Your task to perform on an android device: turn on showing notifications on the lock screen Image 0: 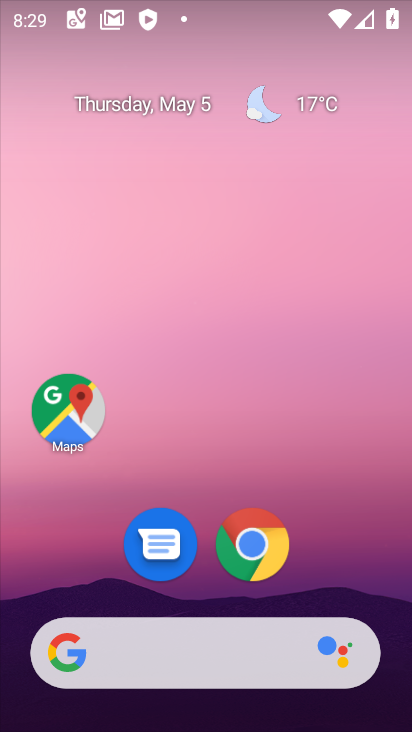
Step 0: drag from (404, 653) to (311, 101)
Your task to perform on an android device: turn on showing notifications on the lock screen Image 1: 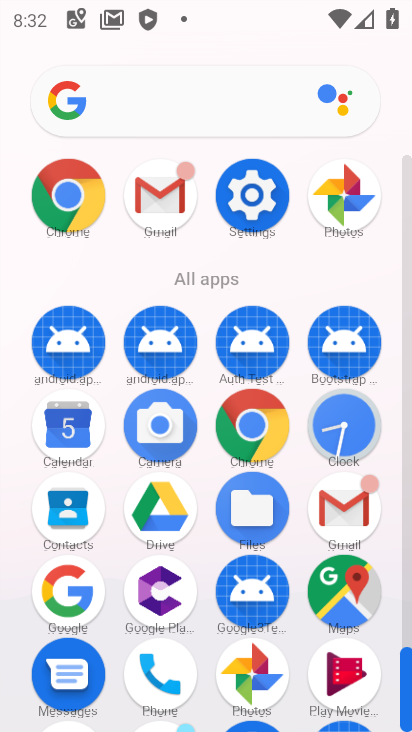
Step 1: click (240, 212)
Your task to perform on an android device: turn on showing notifications on the lock screen Image 2: 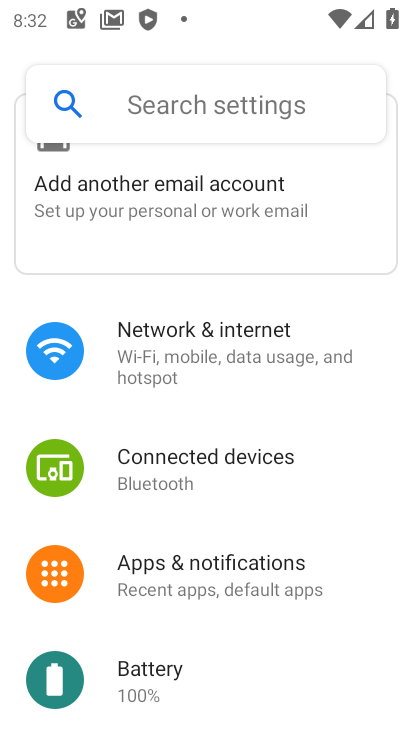
Step 2: drag from (182, 665) to (245, 393)
Your task to perform on an android device: turn on showing notifications on the lock screen Image 3: 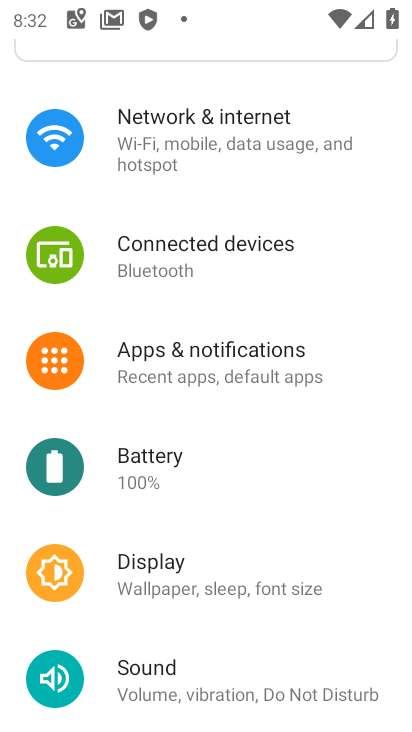
Step 3: click (220, 358)
Your task to perform on an android device: turn on showing notifications on the lock screen Image 4: 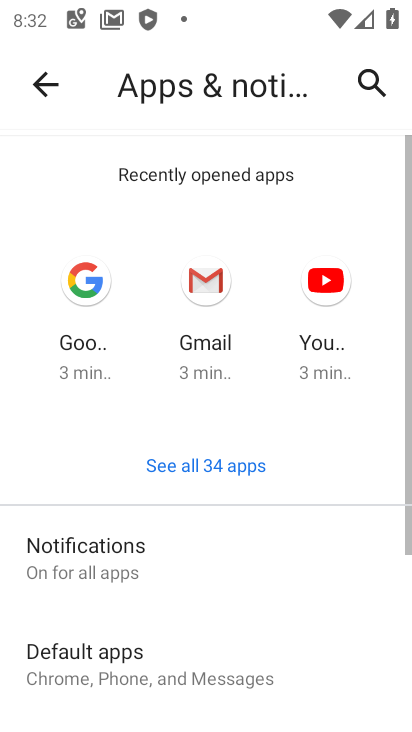
Step 4: click (184, 569)
Your task to perform on an android device: turn on showing notifications on the lock screen Image 5: 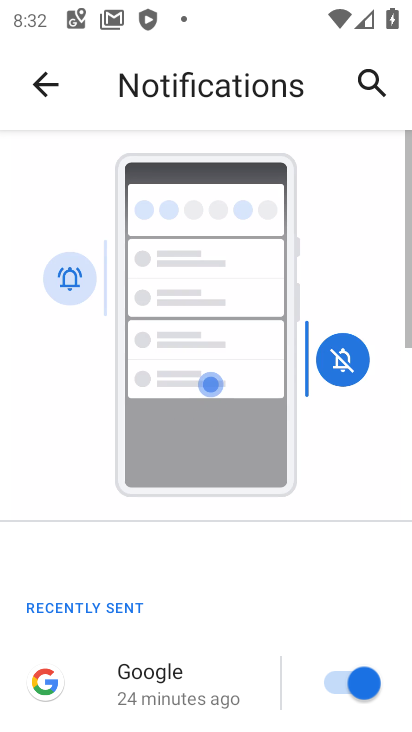
Step 5: drag from (156, 694) to (213, 27)
Your task to perform on an android device: turn on showing notifications on the lock screen Image 6: 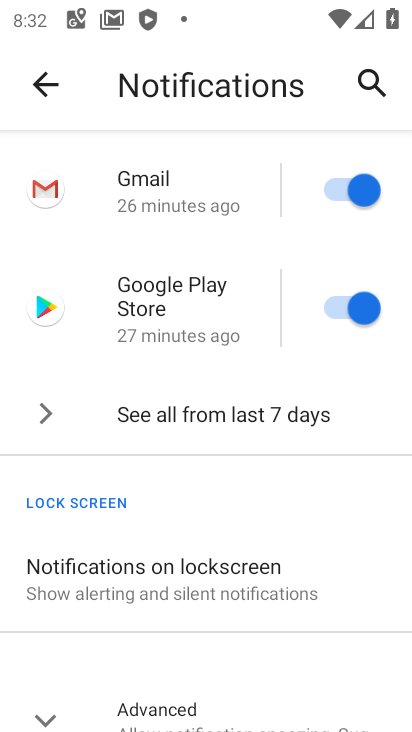
Step 6: click (215, 571)
Your task to perform on an android device: turn on showing notifications on the lock screen Image 7: 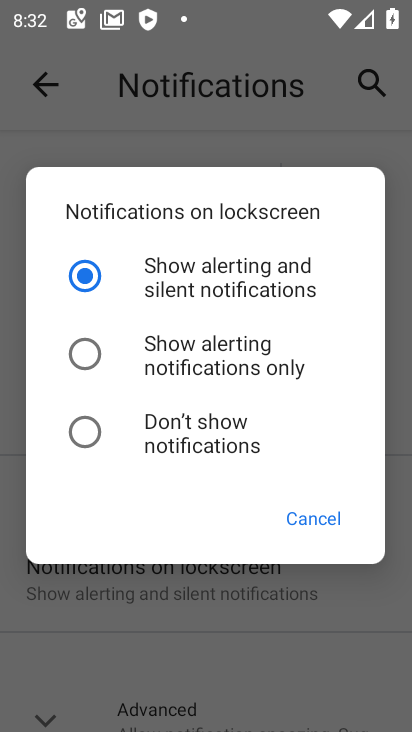
Step 7: task complete